Your task to perform on an android device: find snoozed emails in the gmail app Image 0: 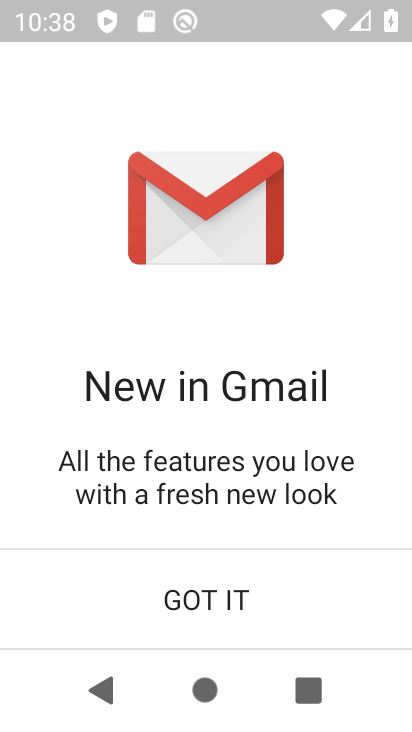
Step 0: press back button
Your task to perform on an android device: find snoozed emails in the gmail app Image 1: 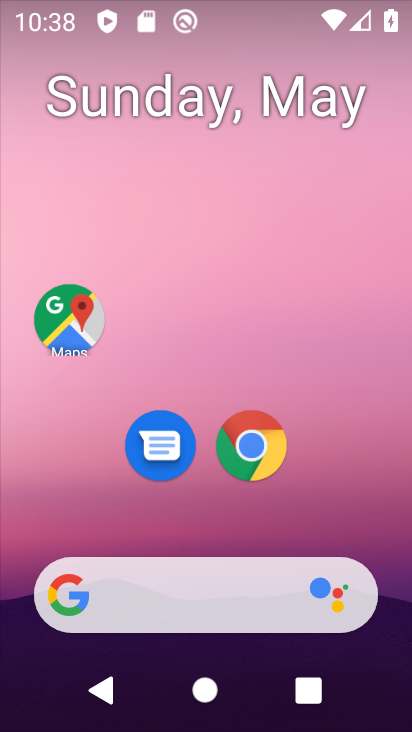
Step 1: drag from (260, 541) to (312, 54)
Your task to perform on an android device: find snoozed emails in the gmail app Image 2: 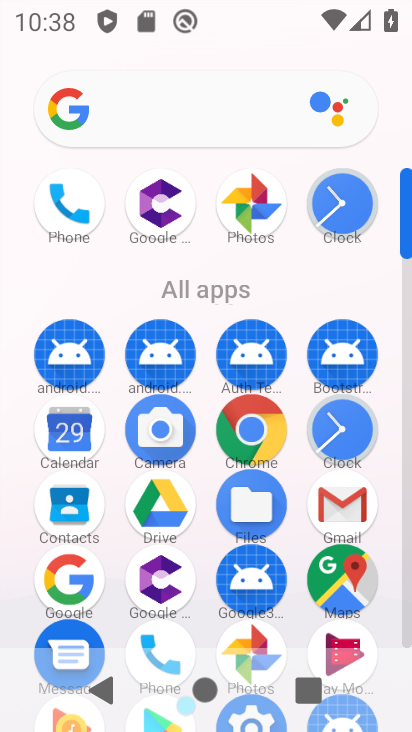
Step 2: click (340, 494)
Your task to perform on an android device: find snoozed emails in the gmail app Image 3: 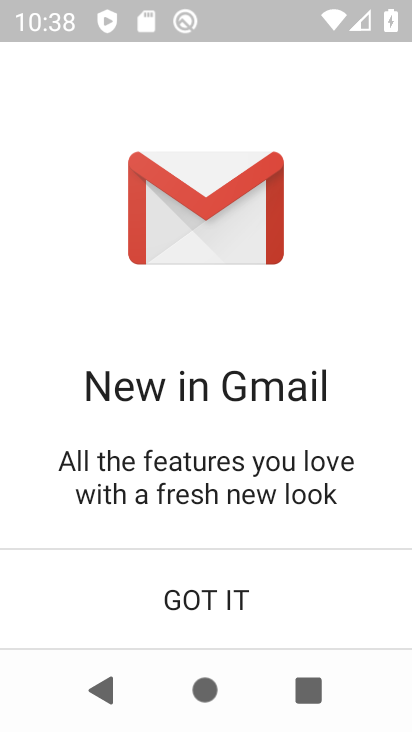
Step 3: press back button
Your task to perform on an android device: find snoozed emails in the gmail app Image 4: 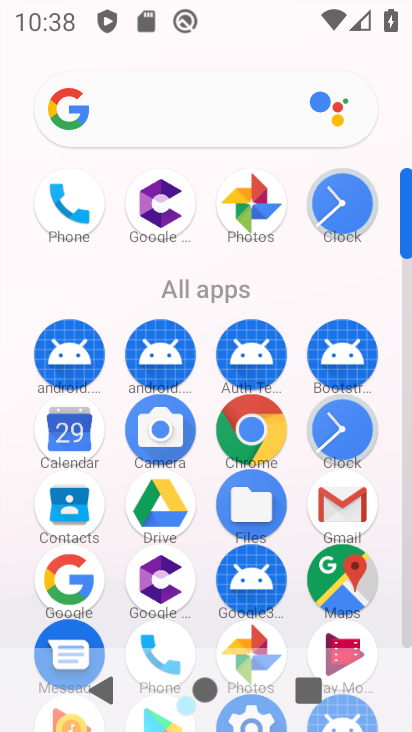
Step 4: press back button
Your task to perform on an android device: find snoozed emails in the gmail app Image 5: 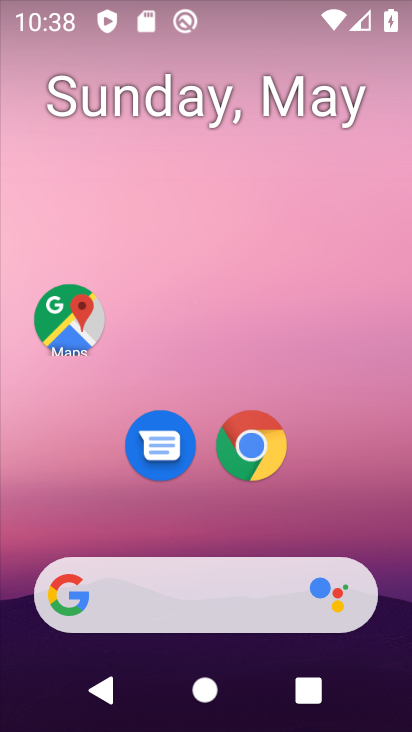
Step 5: drag from (134, 537) to (234, 23)
Your task to perform on an android device: find snoozed emails in the gmail app Image 6: 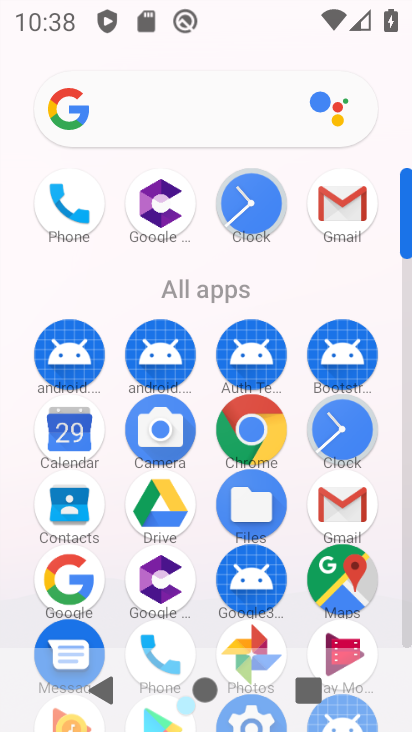
Step 6: click (340, 200)
Your task to perform on an android device: find snoozed emails in the gmail app Image 7: 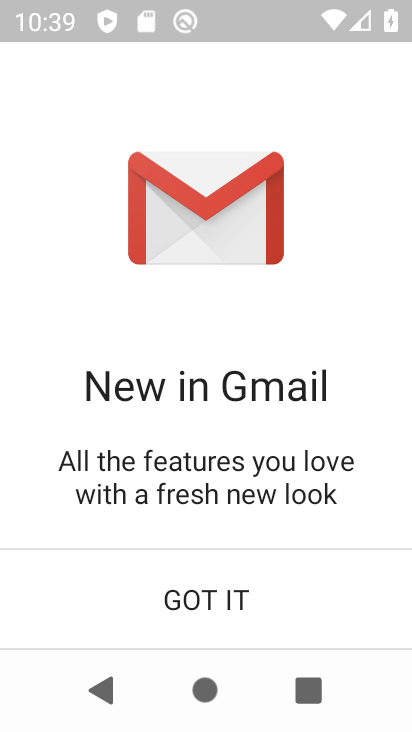
Step 7: click (218, 602)
Your task to perform on an android device: find snoozed emails in the gmail app Image 8: 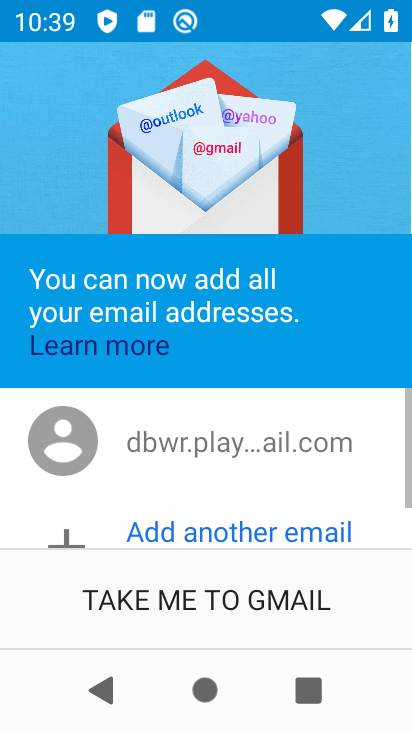
Step 8: click (212, 605)
Your task to perform on an android device: find snoozed emails in the gmail app Image 9: 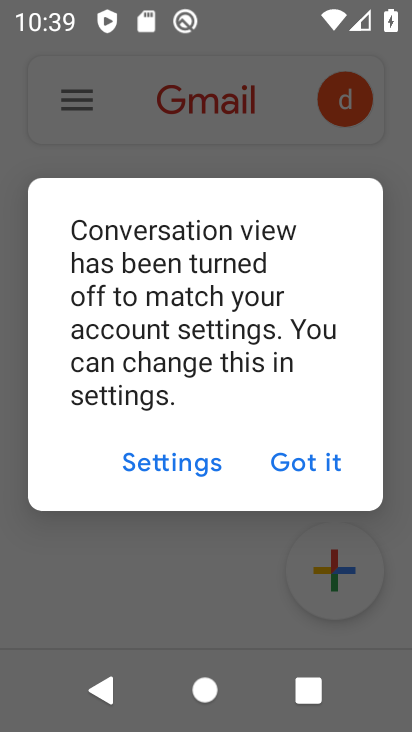
Step 9: click (286, 457)
Your task to perform on an android device: find snoozed emails in the gmail app Image 10: 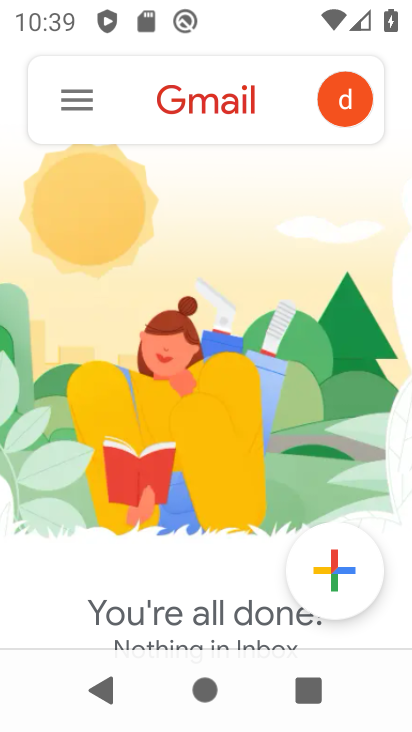
Step 10: click (74, 95)
Your task to perform on an android device: find snoozed emails in the gmail app Image 11: 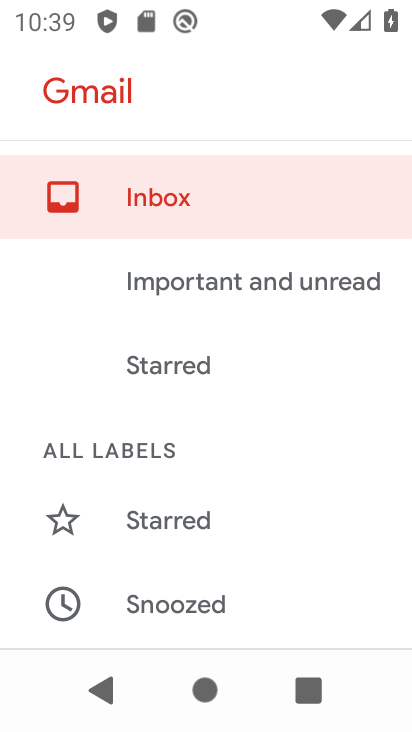
Step 11: drag from (192, 583) to (256, 90)
Your task to perform on an android device: find snoozed emails in the gmail app Image 12: 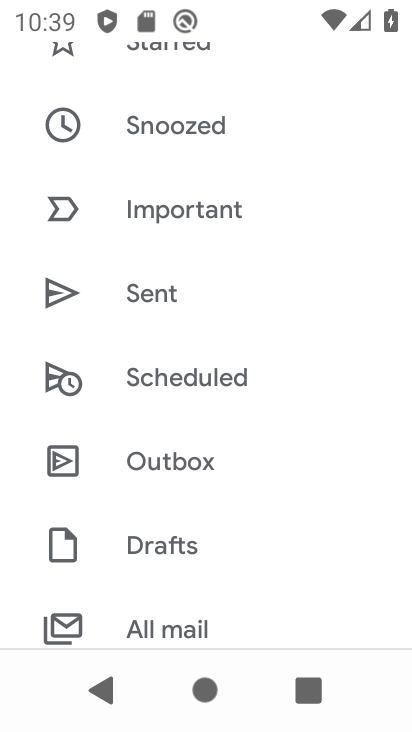
Step 12: click (156, 123)
Your task to perform on an android device: find snoozed emails in the gmail app Image 13: 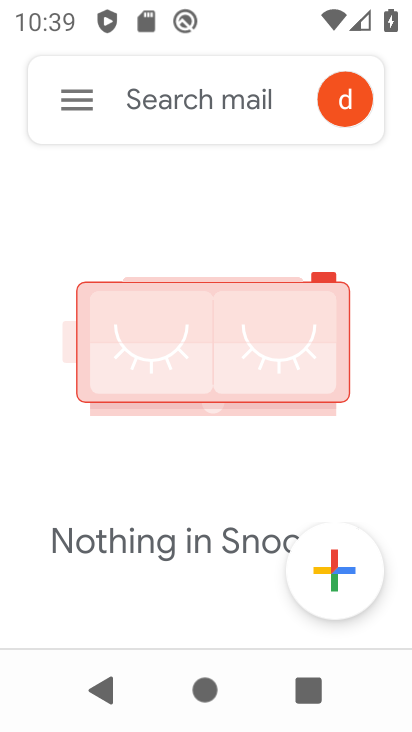
Step 13: task complete